Your task to perform on an android device: toggle notification dots Image 0: 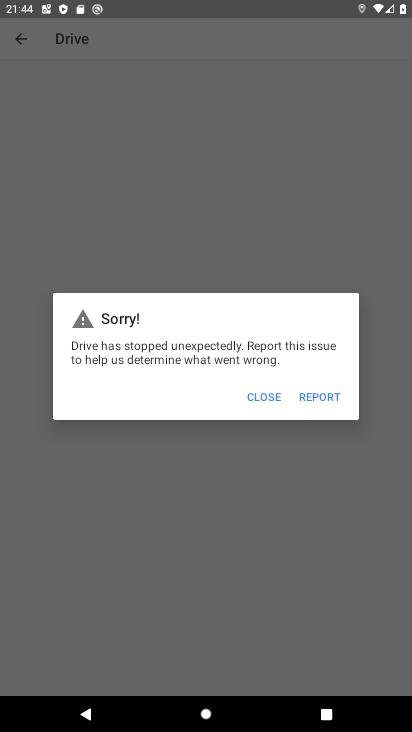
Step 0: press home button
Your task to perform on an android device: toggle notification dots Image 1: 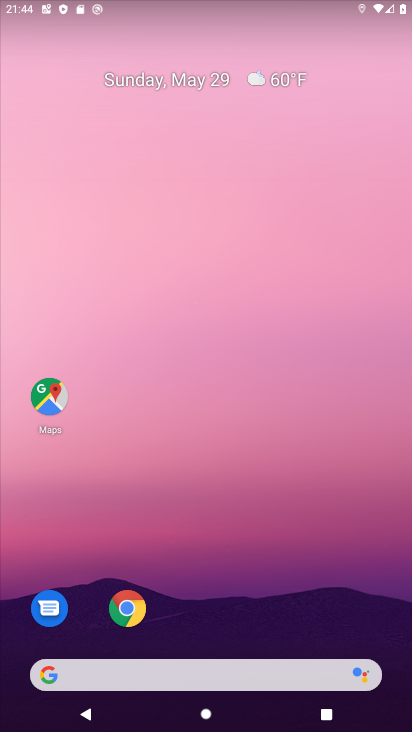
Step 1: drag from (389, 624) to (363, 198)
Your task to perform on an android device: toggle notification dots Image 2: 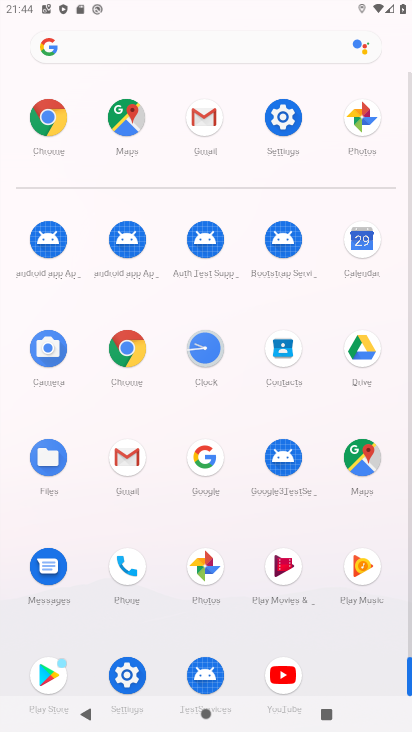
Step 2: click (272, 135)
Your task to perform on an android device: toggle notification dots Image 3: 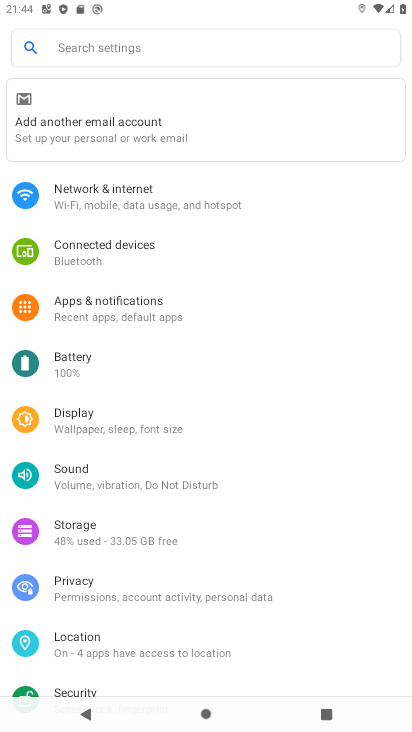
Step 3: drag from (328, 262) to (322, 457)
Your task to perform on an android device: toggle notification dots Image 4: 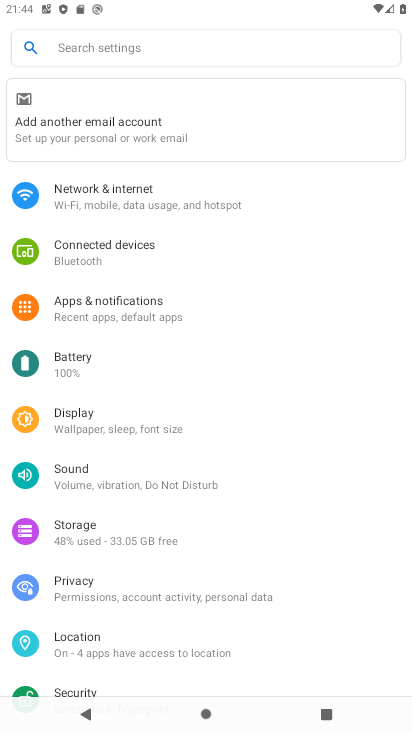
Step 4: click (162, 325)
Your task to perform on an android device: toggle notification dots Image 5: 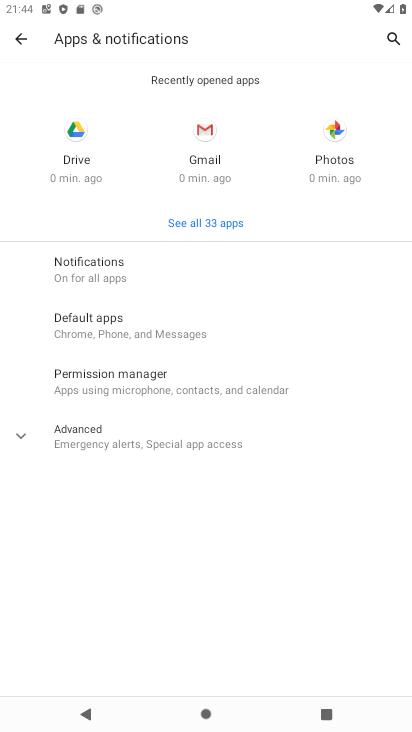
Step 5: click (118, 256)
Your task to perform on an android device: toggle notification dots Image 6: 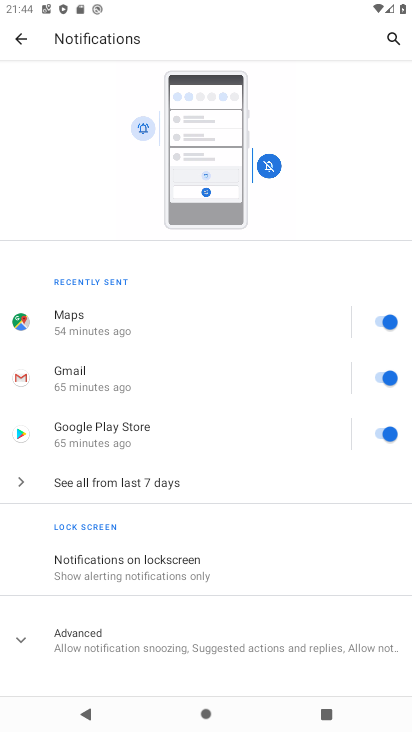
Step 6: drag from (231, 493) to (251, 371)
Your task to perform on an android device: toggle notification dots Image 7: 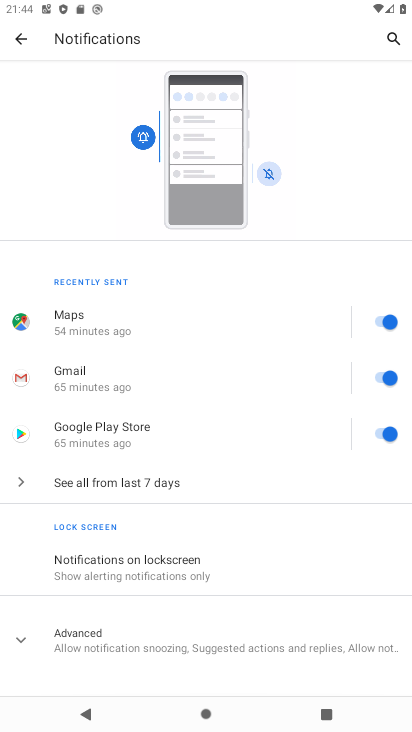
Step 7: click (301, 635)
Your task to perform on an android device: toggle notification dots Image 8: 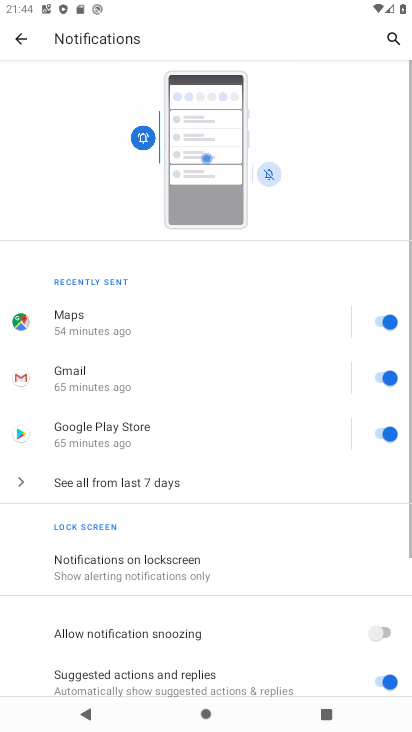
Step 8: drag from (303, 621) to (315, 440)
Your task to perform on an android device: toggle notification dots Image 9: 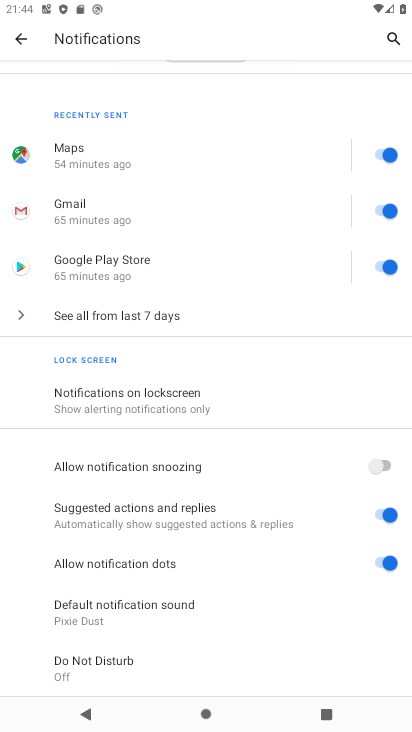
Step 9: click (385, 562)
Your task to perform on an android device: toggle notification dots Image 10: 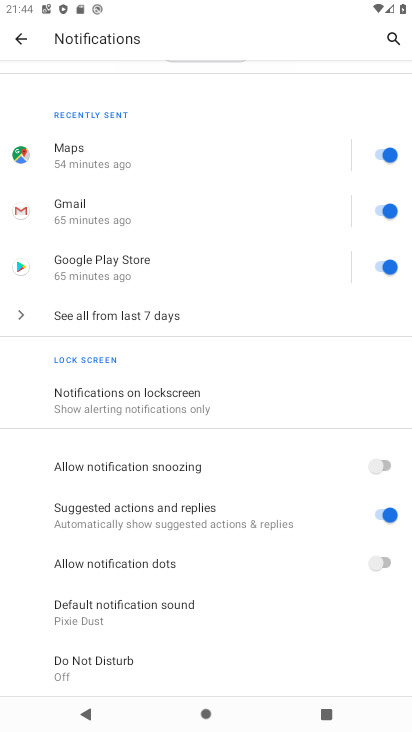
Step 10: task complete